Your task to perform on an android device: Go to sound settings Image 0: 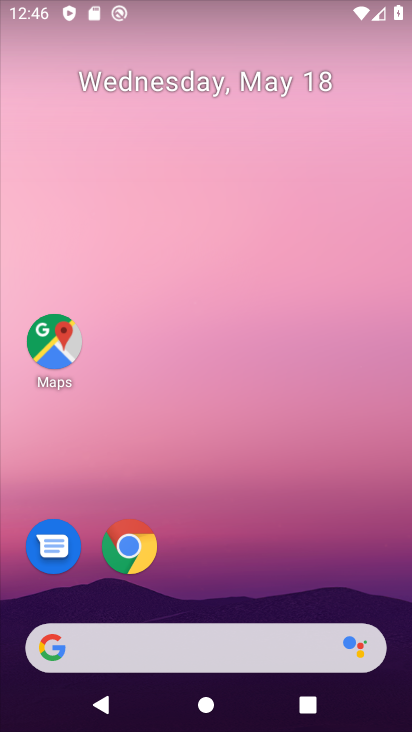
Step 0: drag from (226, 609) to (321, 122)
Your task to perform on an android device: Go to sound settings Image 1: 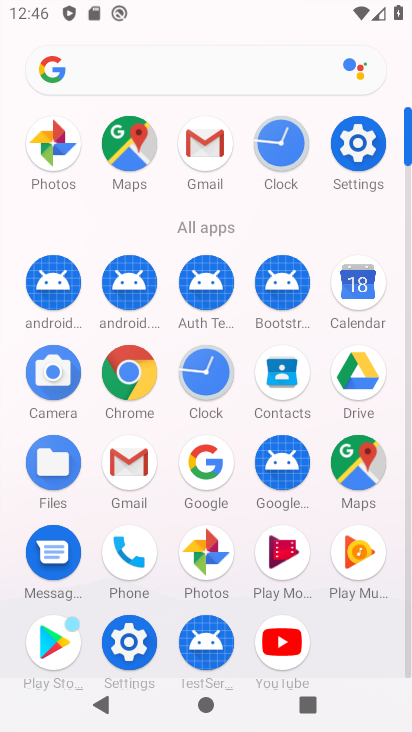
Step 1: click (131, 650)
Your task to perform on an android device: Go to sound settings Image 2: 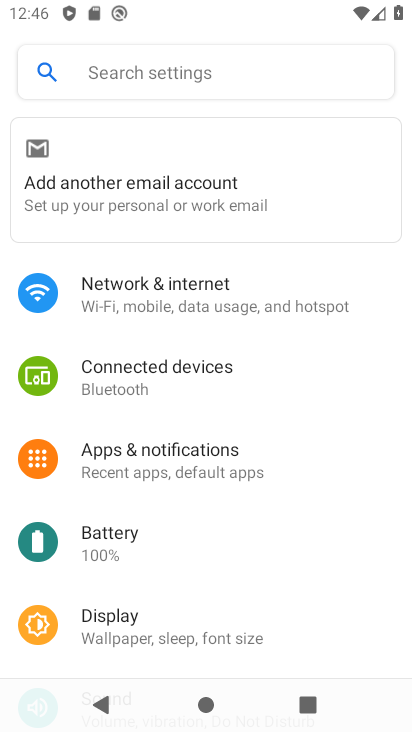
Step 2: drag from (176, 617) to (255, 356)
Your task to perform on an android device: Go to sound settings Image 3: 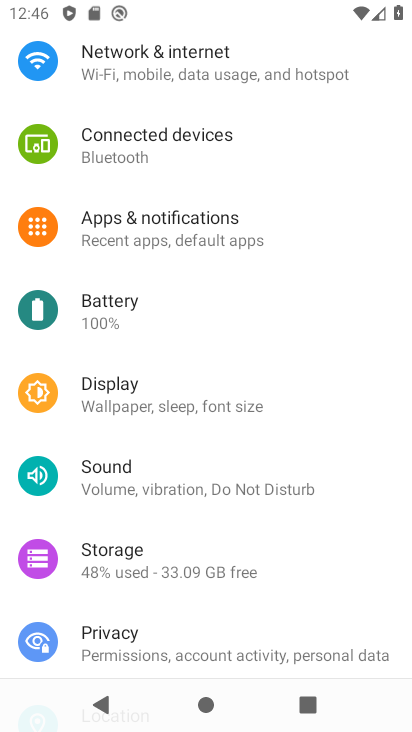
Step 3: click (172, 468)
Your task to perform on an android device: Go to sound settings Image 4: 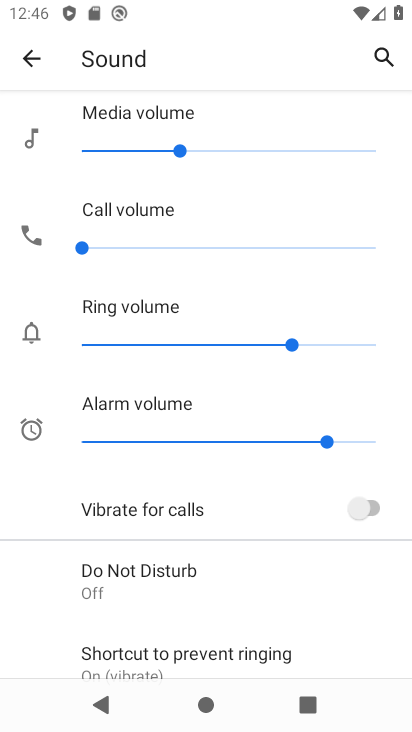
Step 4: task complete